Your task to perform on an android device: Go to location settings Image 0: 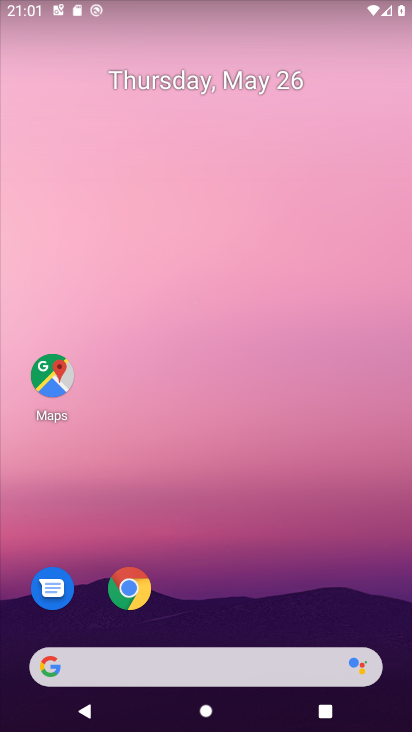
Step 0: drag from (302, 626) to (300, 96)
Your task to perform on an android device: Go to location settings Image 1: 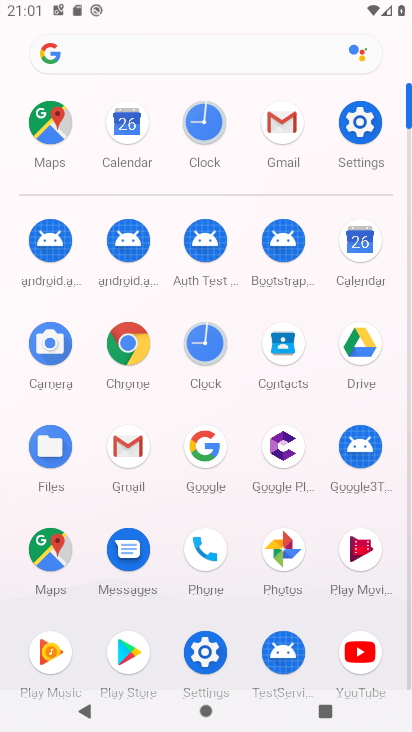
Step 1: click (368, 132)
Your task to perform on an android device: Go to location settings Image 2: 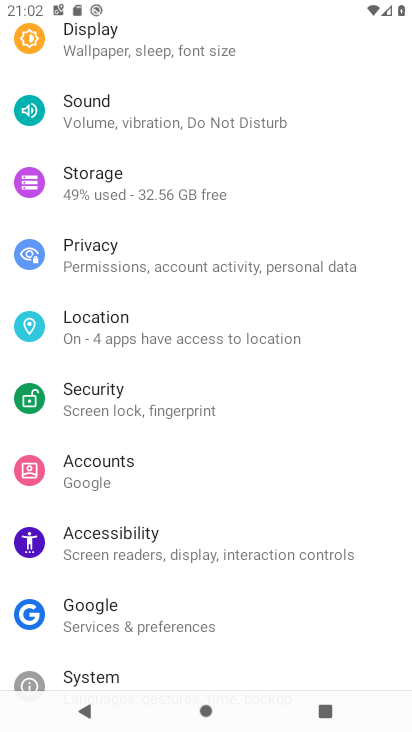
Step 2: click (132, 322)
Your task to perform on an android device: Go to location settings Image 3: 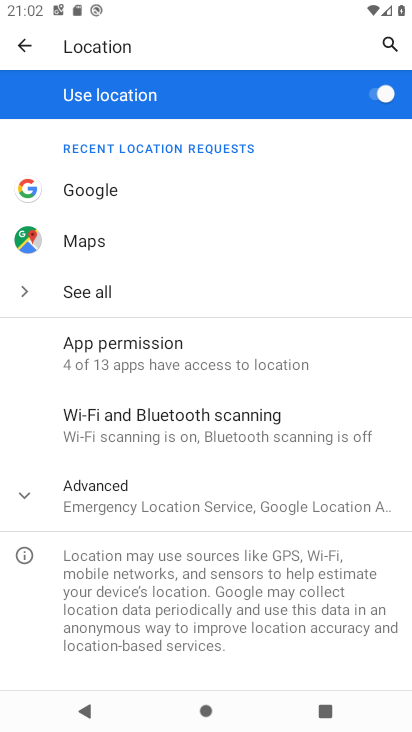
Step 3: task complete